Your task to perform on an android device: change the clock style Image 0: 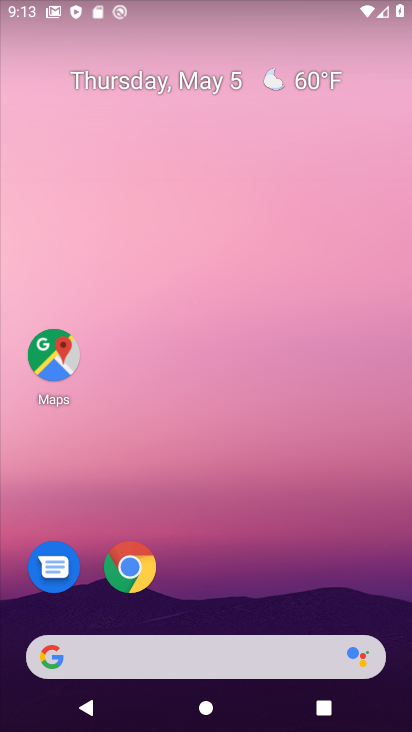
Step 0: drag from (232, 590) to (198, 91)
Your task to perform on an android device: change the clock style Image 1: 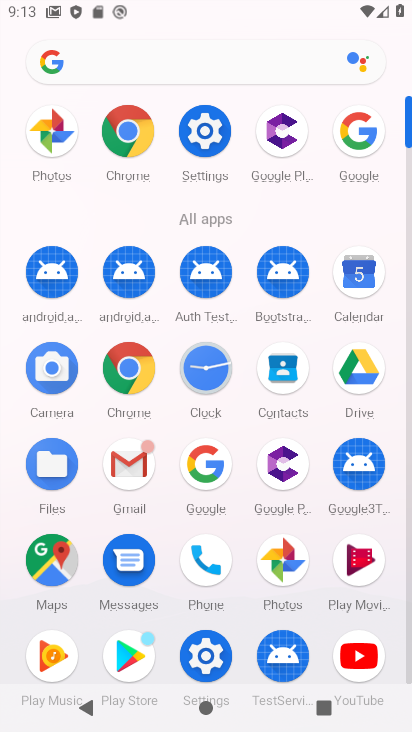
Step 1: click (212, 378)
Your task to perform on an android device: change the clock style Image 2: 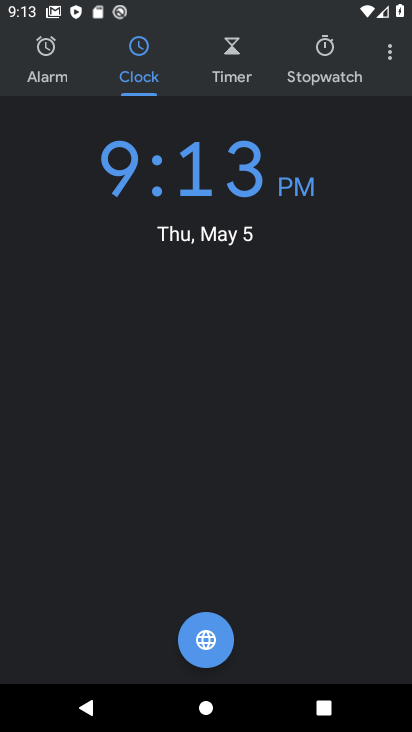
Step 2: click (390, 55)
Your task to perform on an android device: change the clock style Image 3: 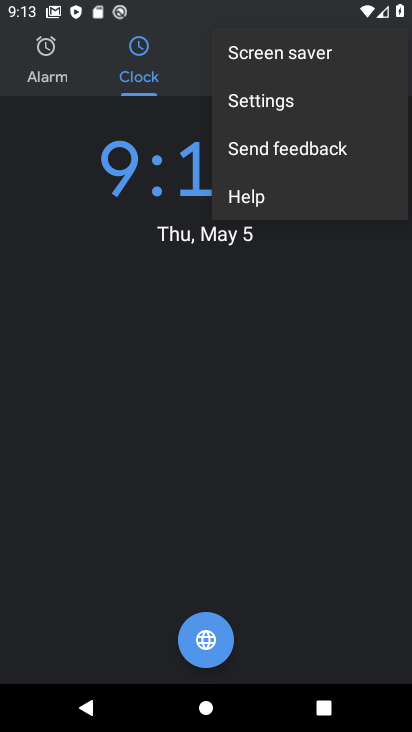
Step 3: click (268, 107)
Your task to perform on an android device: change the clock style Image 4: 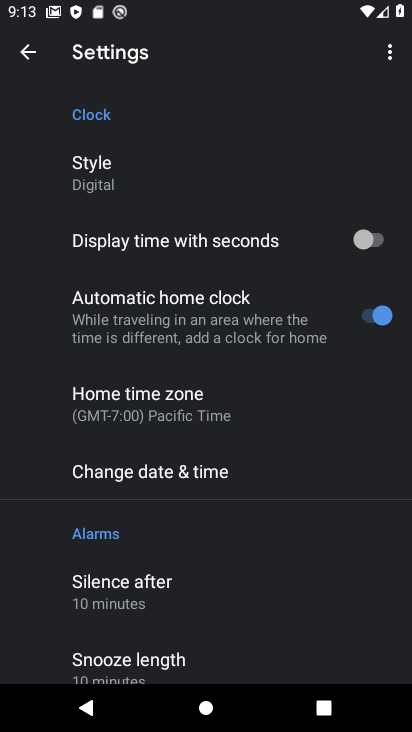
Step 4: click (153, 172)
Your task to perform on an android device: change the clock style Image 5: 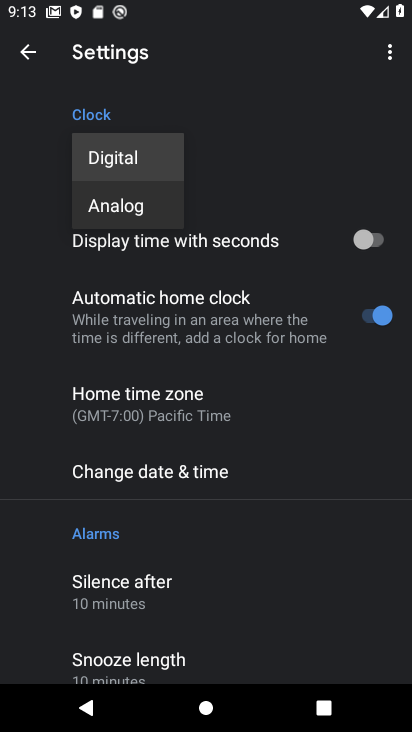
Step 5: click (147, 194)
Your task to perform on an android device: change the clock style Image 6: 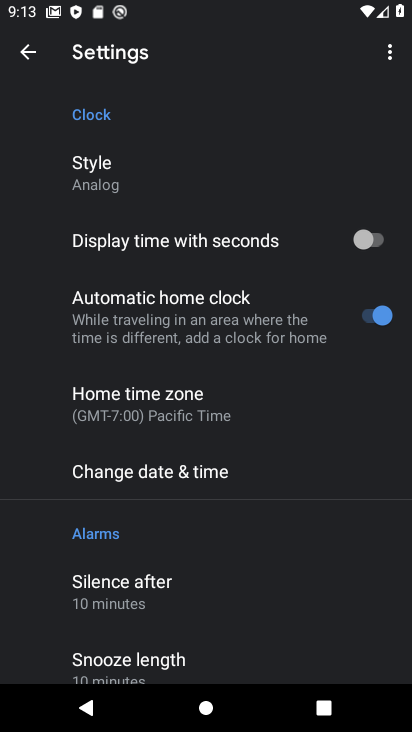
Step 6: task complete